Your task to perform on an android device: change the clock display to show seconds Image 0: 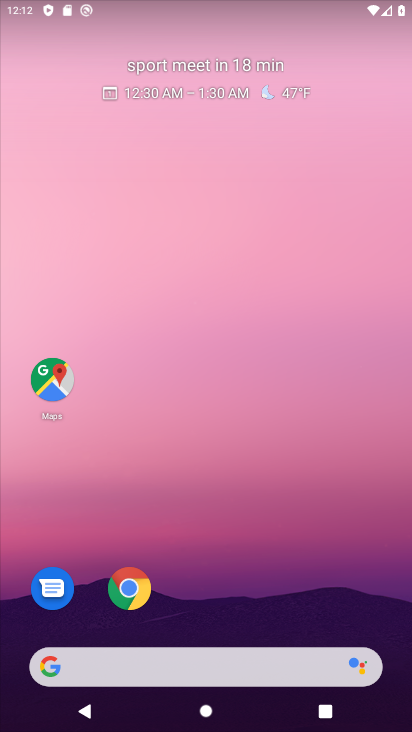
Step 0: drag from (318, 552) to (316, 82)
Your task to perform on an android device: change the clock display to show seconds Image 1: 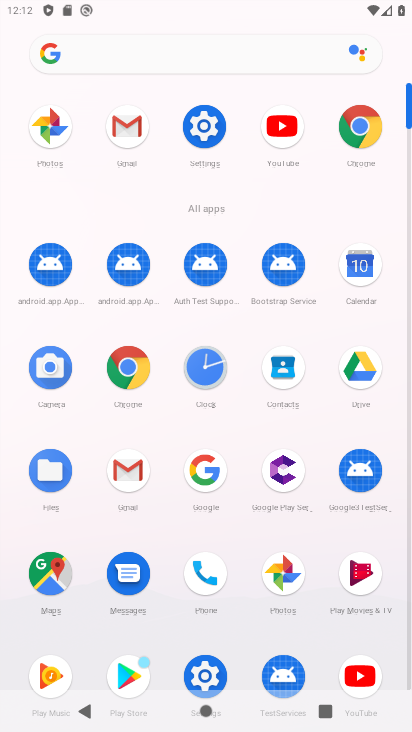
Step 1: click (199, 364)
Your task to perform on an android device: change the clock display to show seconds Image 2: 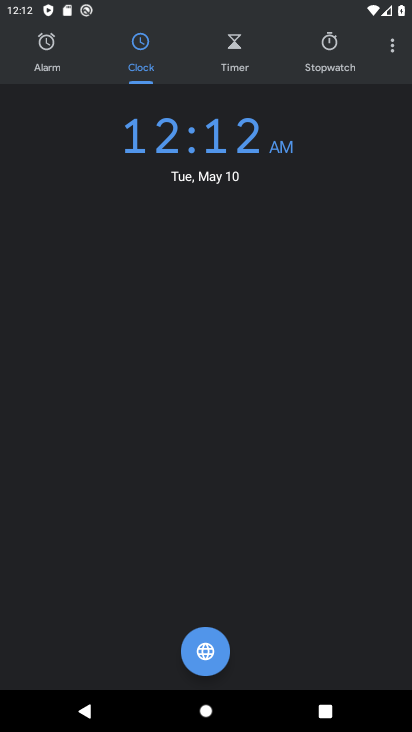
Step 2: click (393, 47)
Your task to perform on an android device: change the clock display to show seconds Image 3: 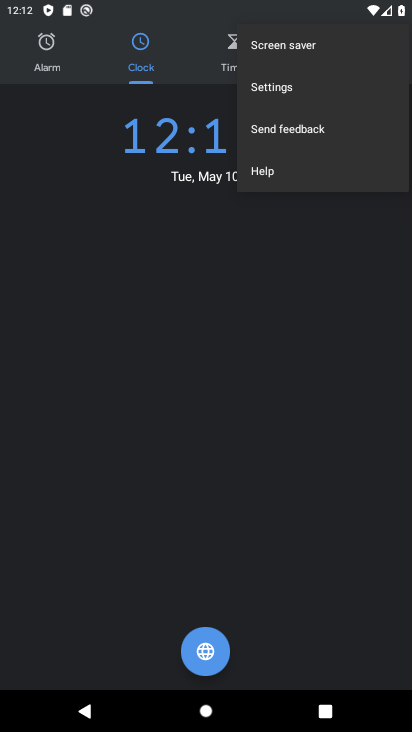
Step 3: click (340, 95)
Your task to perform on an android device: change the clock display to show seconds Image 4: 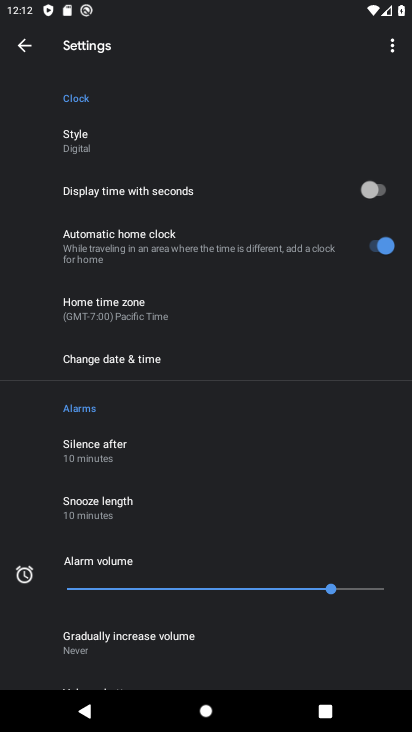
Step 4: click (384, 188)
Your task to perform on an android device: change the clock display to show seconds Image 5: 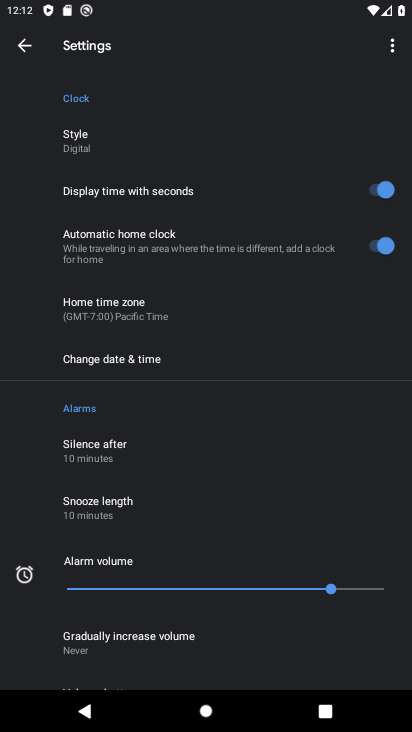
Step 5: task complete